Your task to perform on an android device: Go to Amazon Image 0: 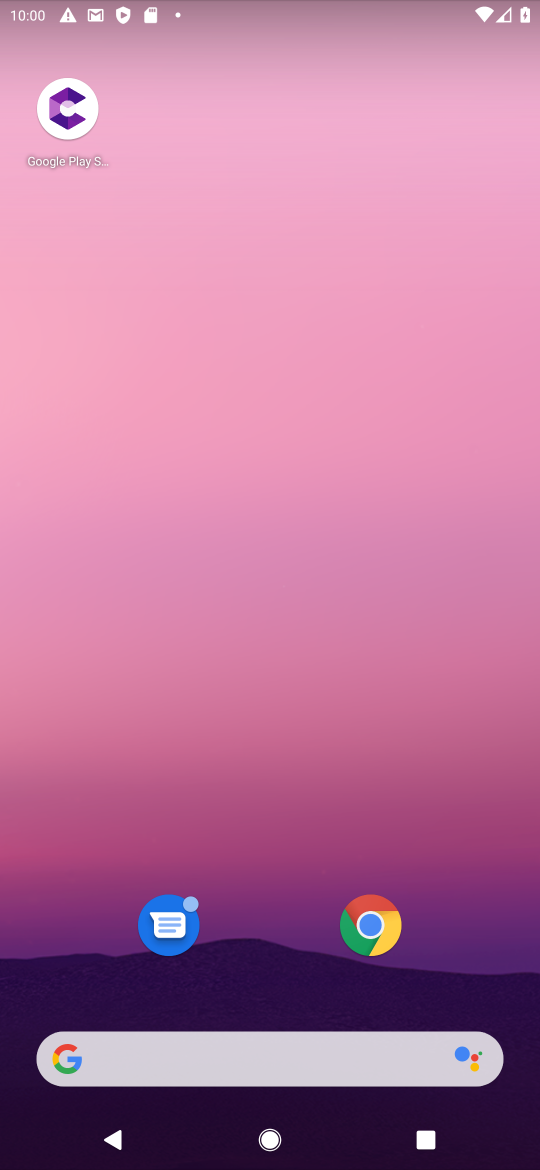
Step 0: drag from (218, 954) to (516, 43)
Your task to perform on an android device: Go to Amazon Image 1: 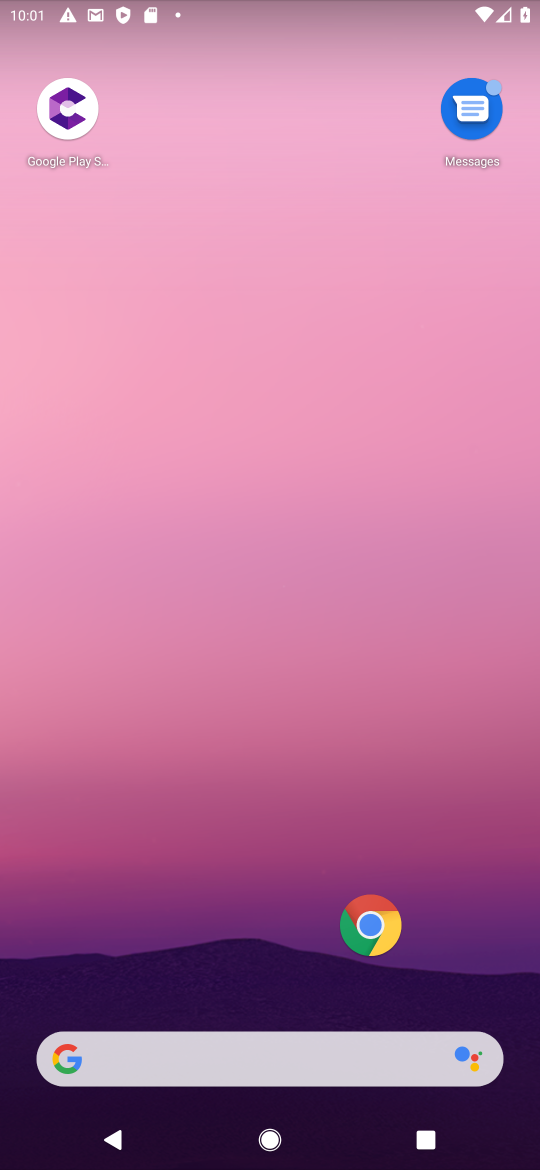
Step 1: drag from (355, 689) to (495, 1)
Your task to perform on an android device: Go to Amazon Image 2: 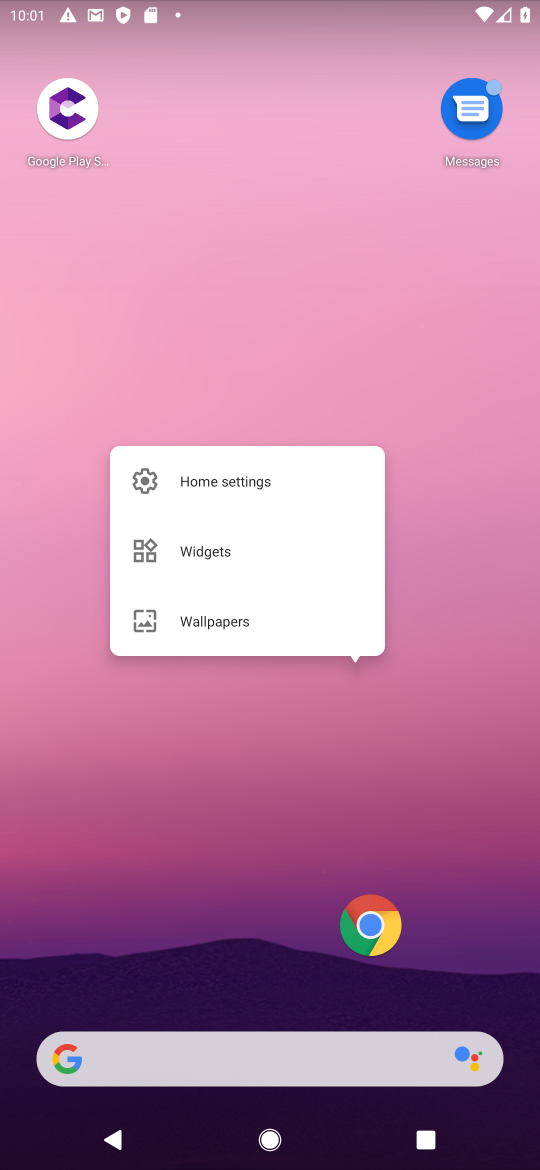
Step 2: drag from (408, 312) to (512, 20)
Your task to perform on an android device: Go to Amazon Image 3: 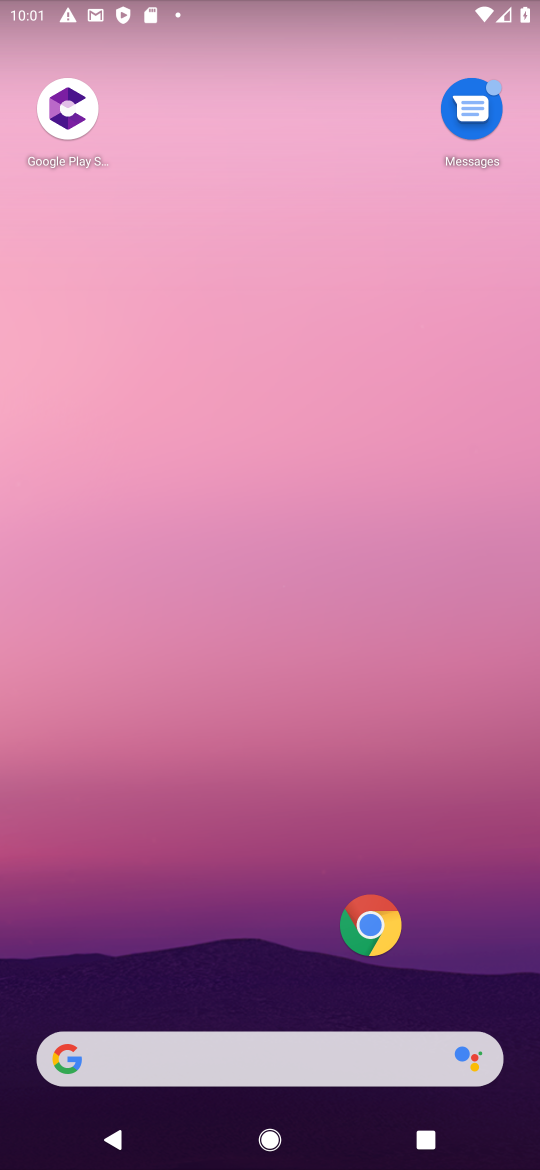
Step 3: drag from (307, 1053) to (429, 119)
Your task to perform on an android device: Go to Amazon Image 4: 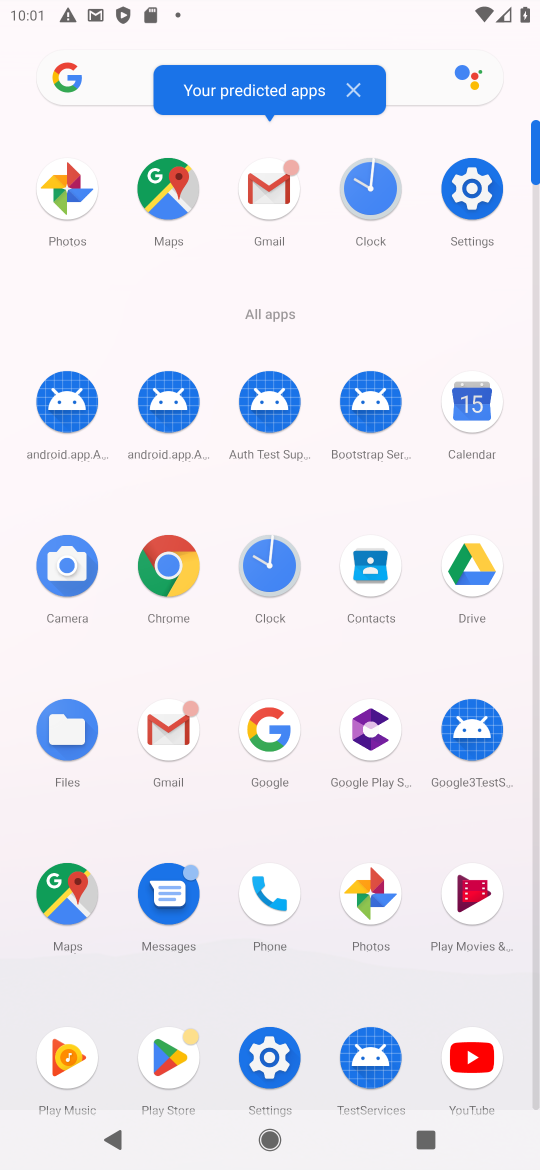
Step 4: click (185, 565)
Your task to perform on an android device: Go to Amazon Image 5: 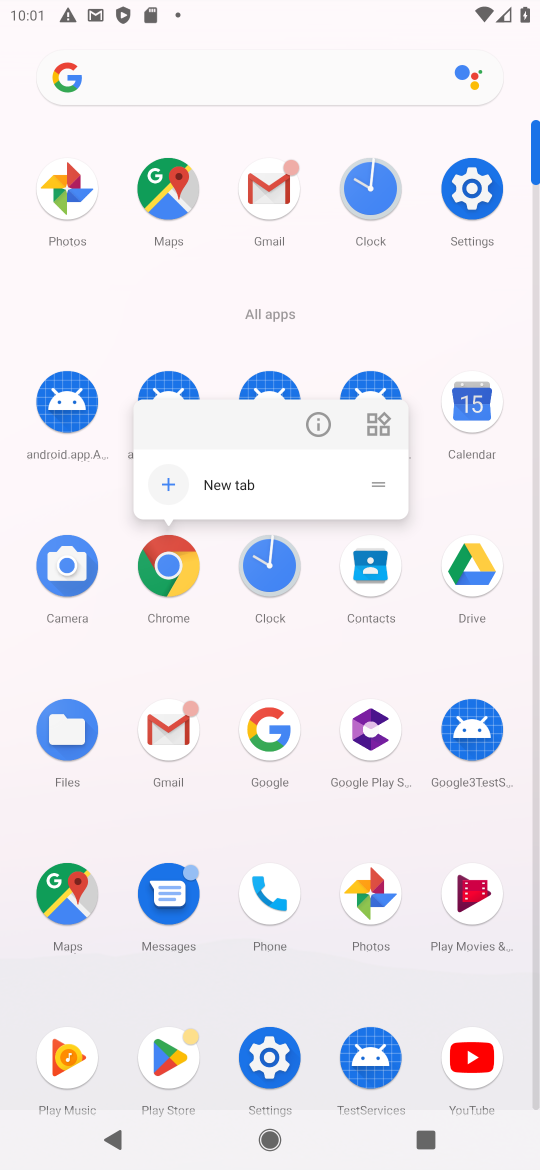
Step 5: click (185, 565)
Your task to perform on an android device: Go to Amazon Image 6: 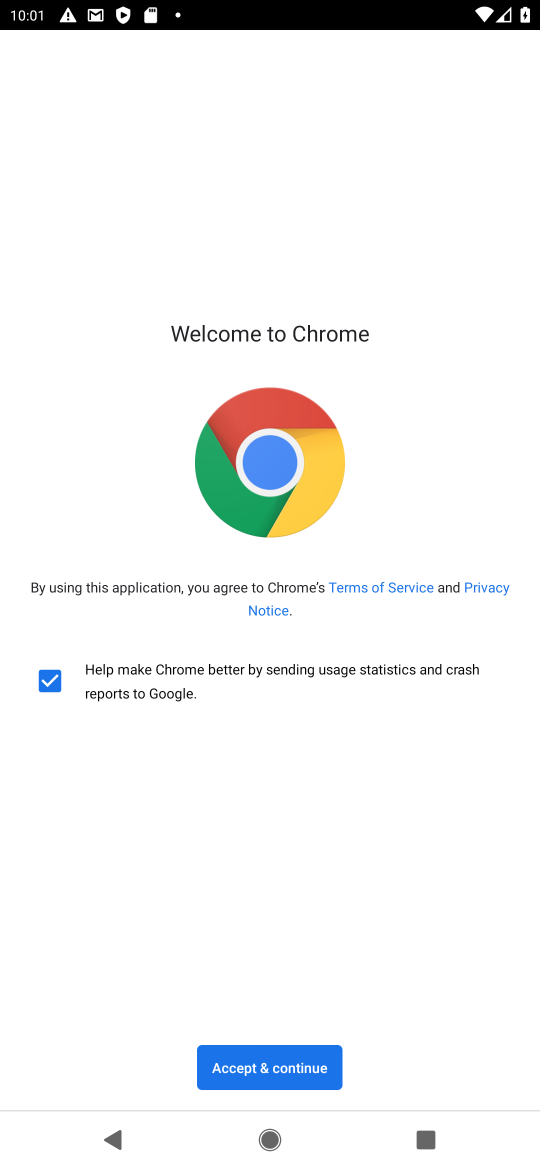
Step 6: click (276, 1061)
Your task to perform on an android device: Go to Amazon Image 7: 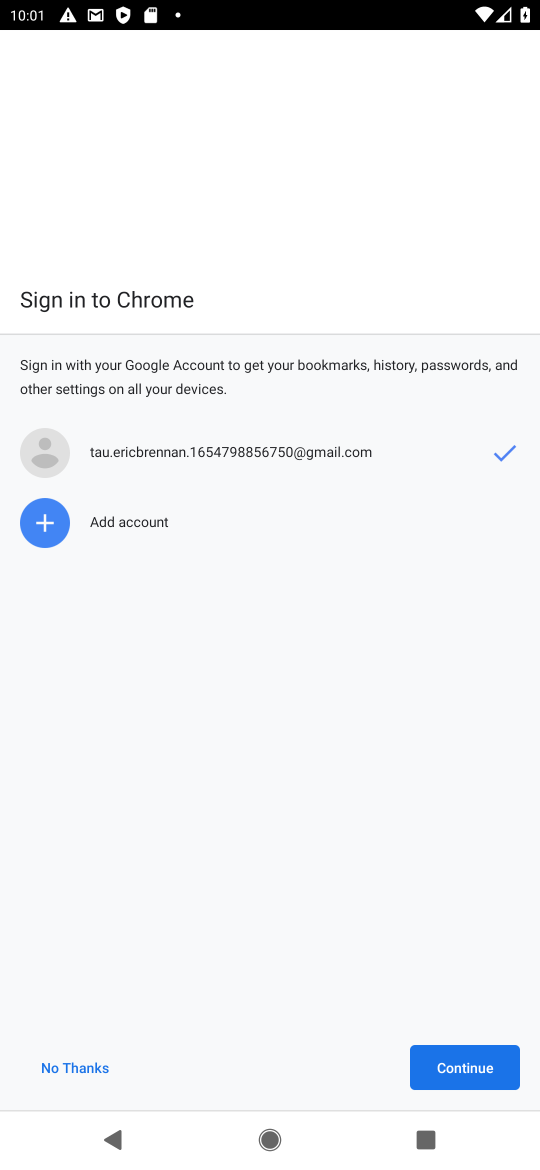
Step 7: click (53, 1084)
Your task to perform on an android device: Go to Amazon Image 8: 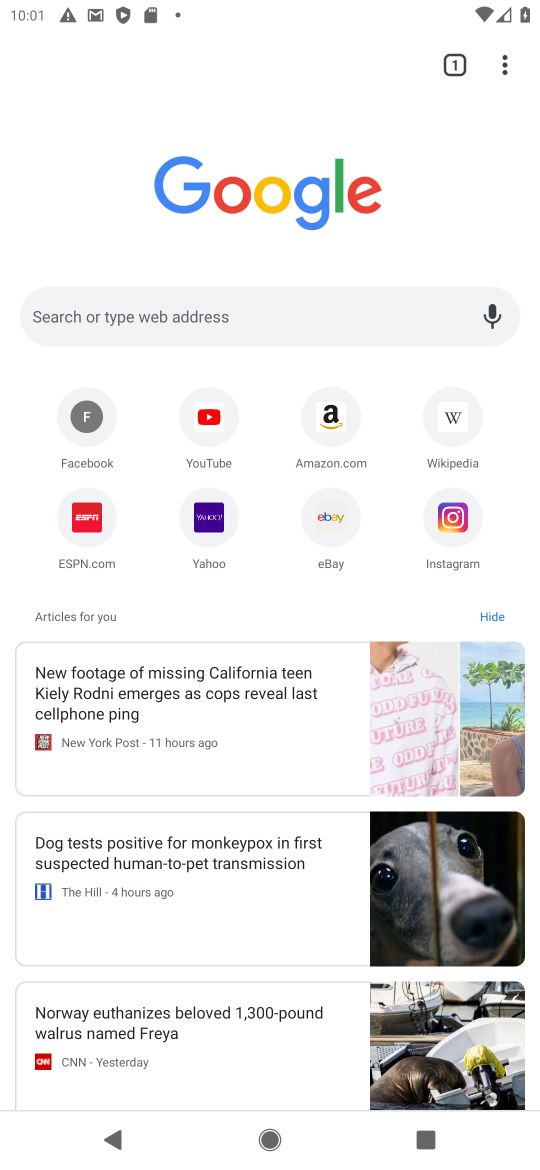
Step 8: click (329, 429)
Your task to perform on an android device: Go to Amazon Image 9: 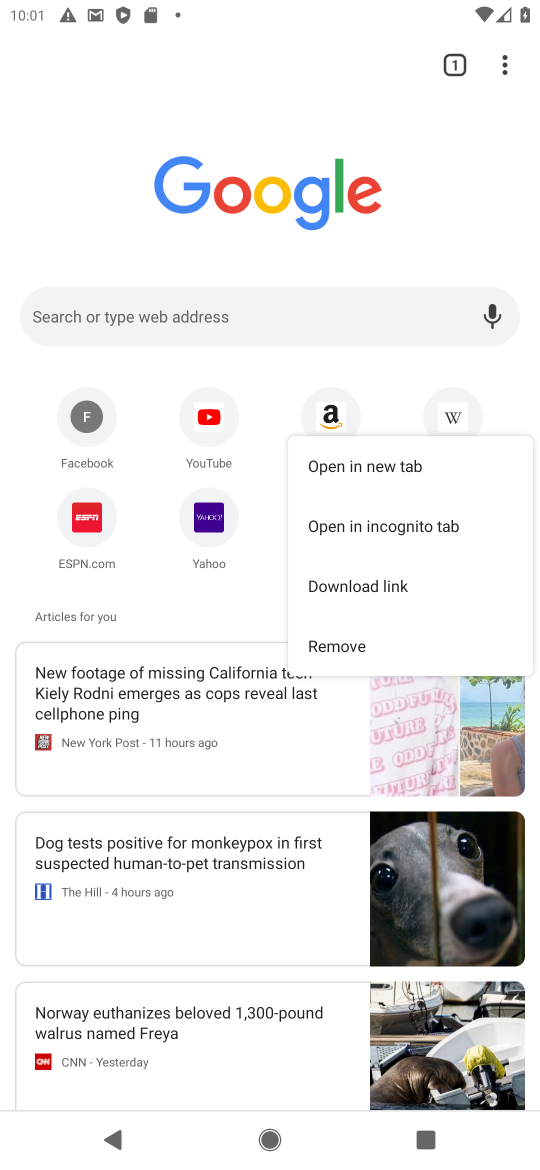
Step 9: click (347, 425)
Your task to perform on an android device: Go to Amazon Image 10: 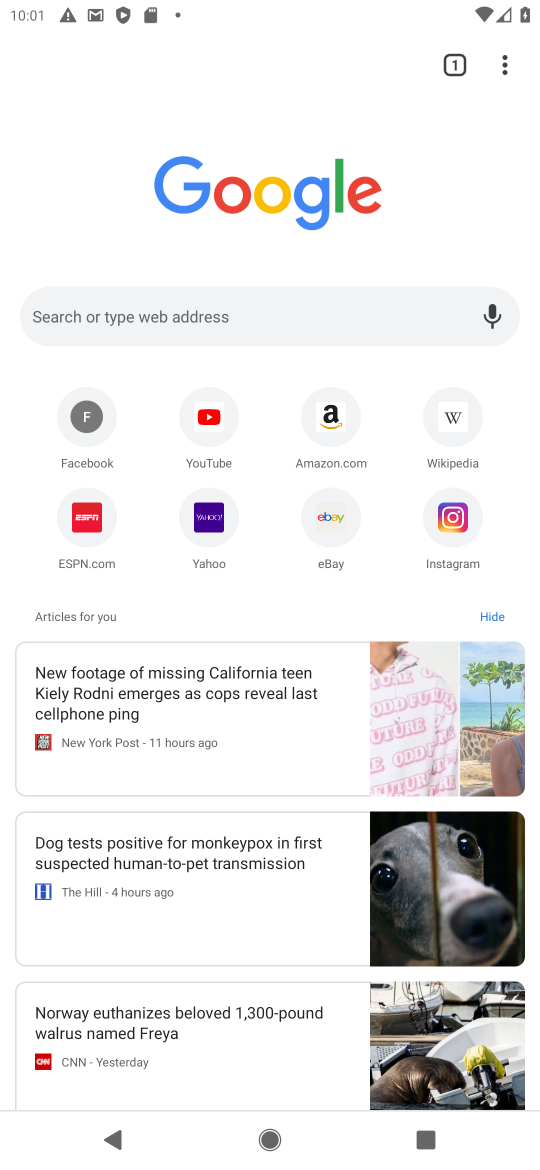
Step 10: click (343, 441)
Your task to perform on an android device: Go to Amazon Image 11: 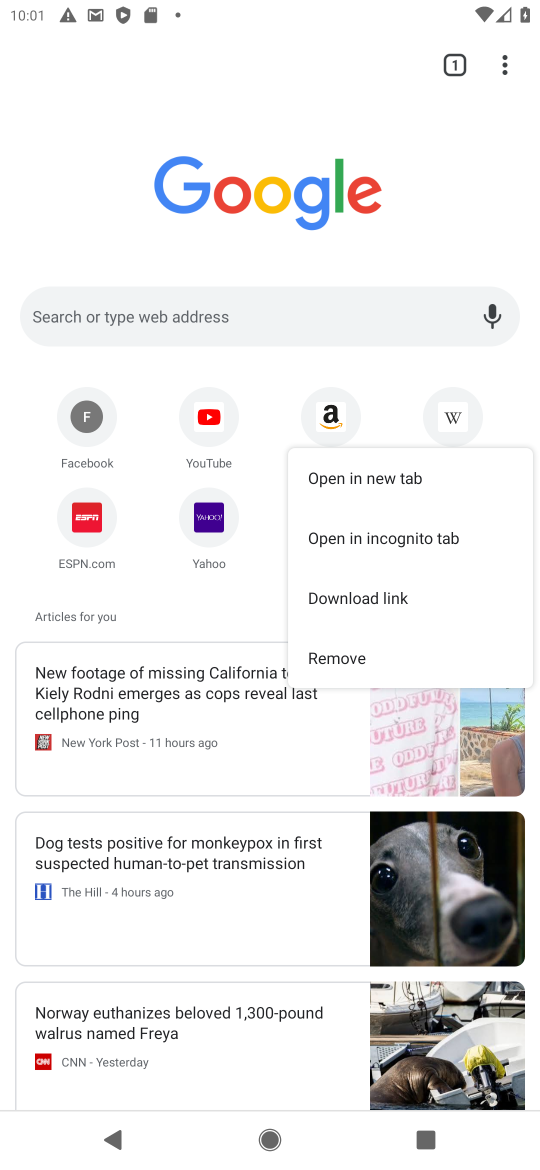
Step 11: task complete